Your task to perform on an android device: open wifi settings Image 0: 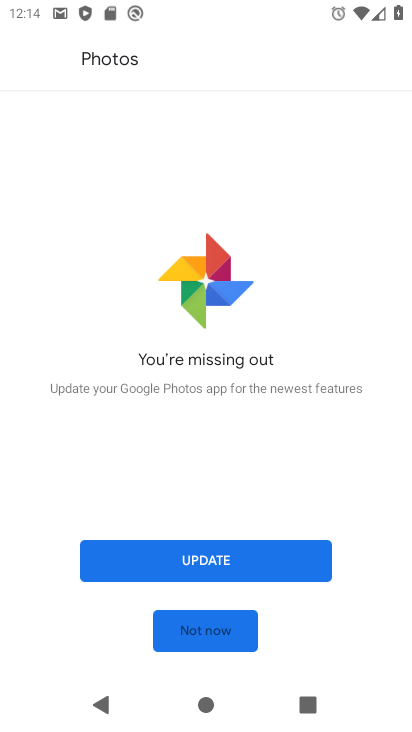
Step 0: press back button
Your task to perform on an android device: open wifi settings Image 1: 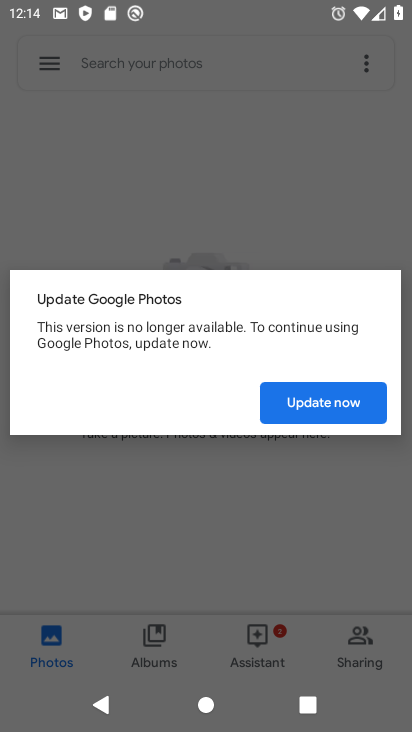
Step 1: press home button
Your task to perform on an android device: open wifi settings Image 2: 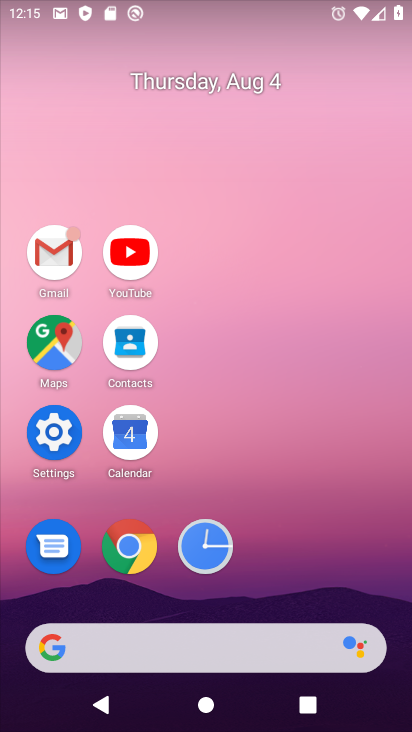
Step 2: click (53, 428)
Your task to perform on an android device: open wifi settings Image 3: 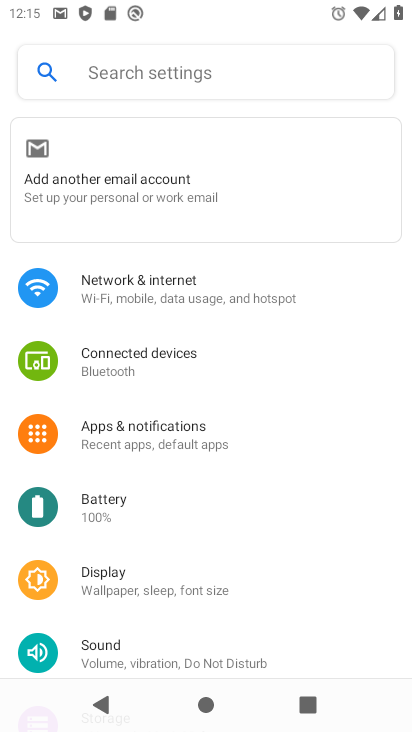
Step 3: click (137, 281)
Your task to perform on an android device: open wifi settings Image 4: 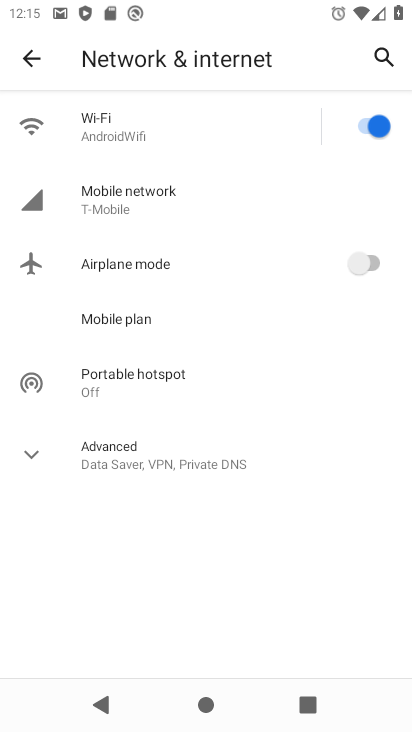
Step 4: click (127, 129)
Your task to perform on an android device: open wifi settings Image 5: 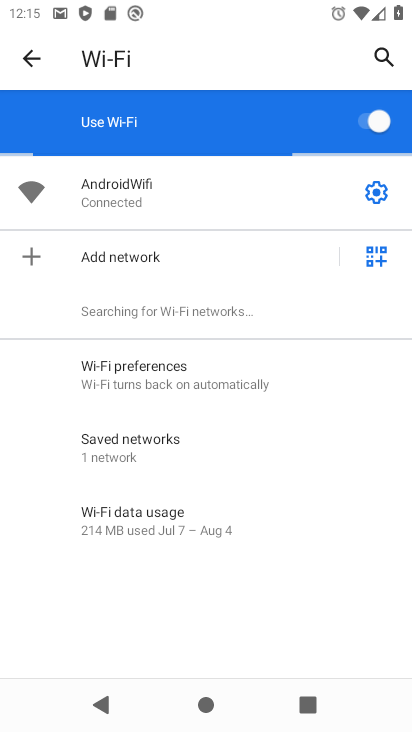
Step 5: task complete